Your task to perform on an android device: Open sound settings Image 0: 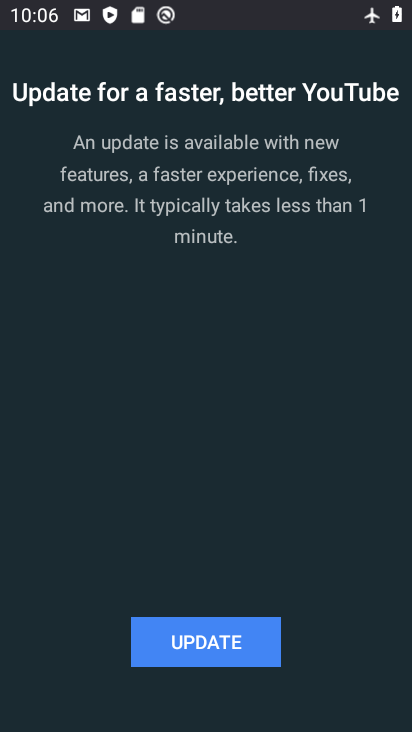
Step 0: click (206, 615)
Your task to perform on an android device: Open sound settings Image 1: 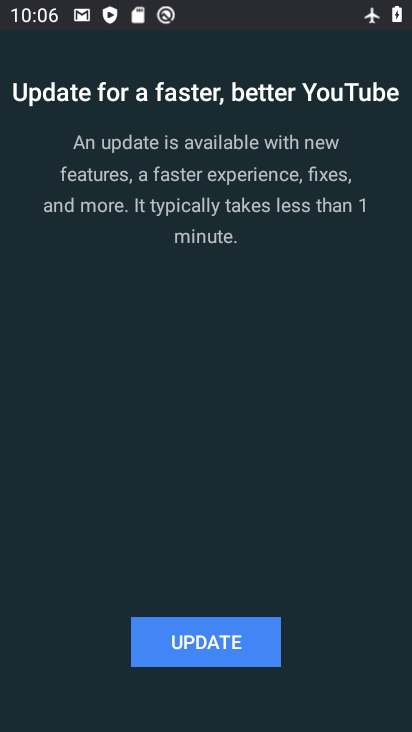
Step 1: click (206, 640)
Your task to perform on an android device: Open sound settings Image 2: 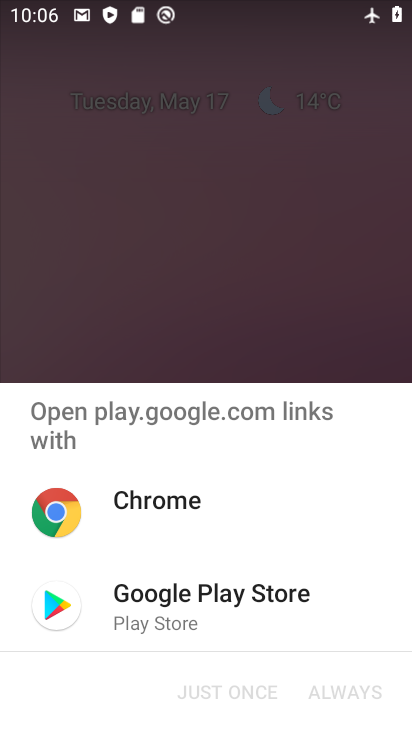
Step 2: click (267, 285)
Your task to perform on an android device: Open sound settings Image 3: 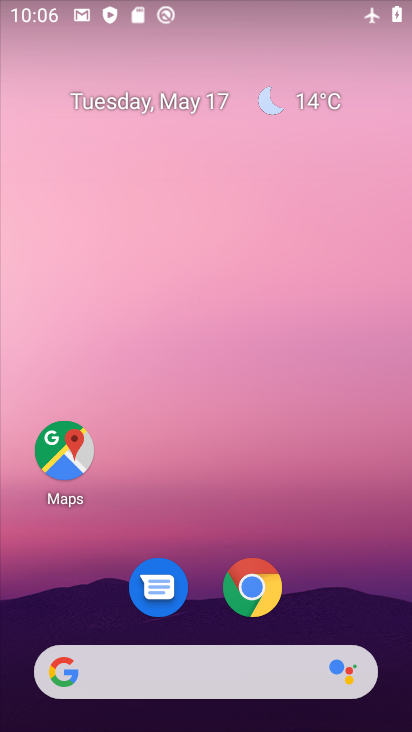
Step 3: drag from (278, 621) to (185, 110)
Your task to perform on an android device: Open sound settings Image 4: 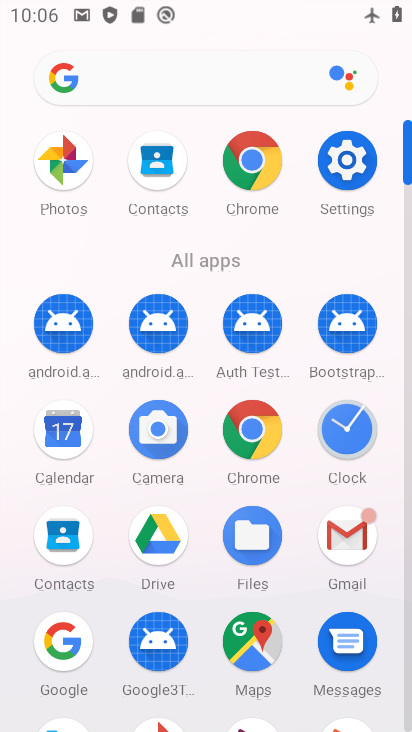
Step 4: click (321, 169)
Your task to perform on an android device: Open sound settings Image 5: 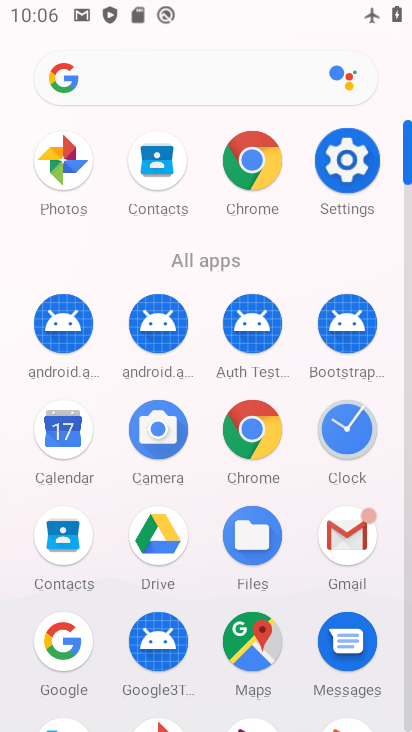
Step 5: click (321, 169)
Your task to perform on an android device: Open sound settings Image 6: 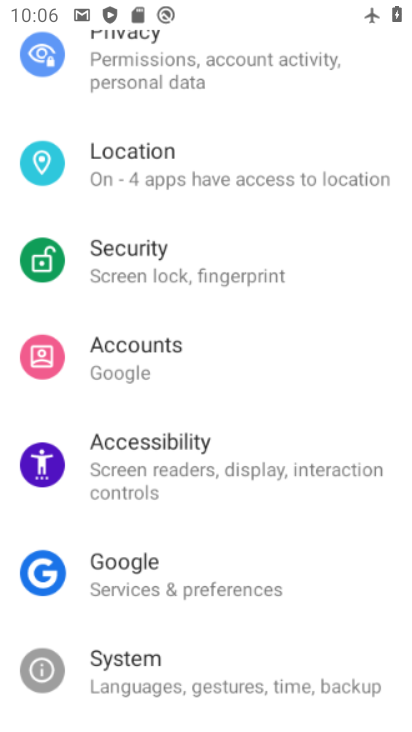
Step 6: click (322, 170)
Your task to perform on an android device: Open sound settings Image 7: 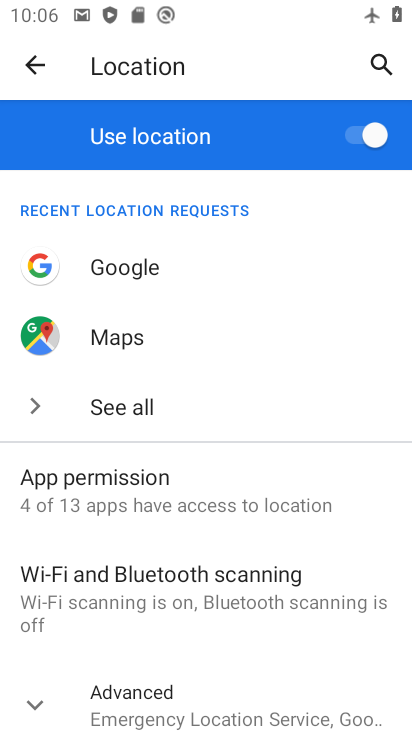
Step 7: click (31, 55)
Your task to perform on an android device: Open sound settings Image 8: 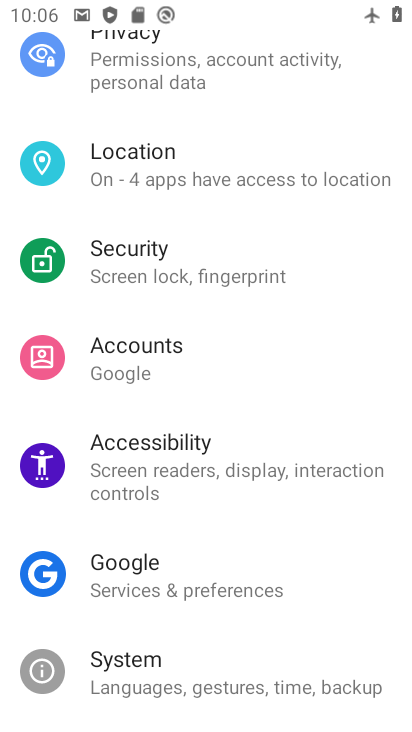
Step 8: drag from (168, 279) to (175, 561)
Your task to perform on an android device: Open sound settings Image 9: 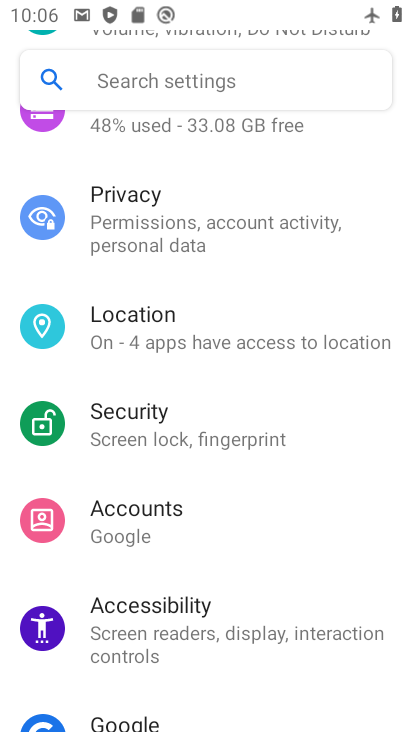
Step 9: drag from (127, 216) to (136, 491)
Your task to perform on an android device: Open sound settings Image 10: 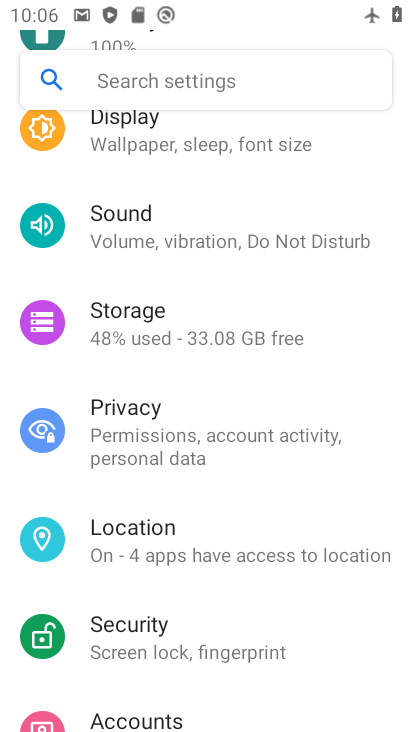
Step 10: drag from (136, 254) to (150, 494)
Your task to perform on an android device: Open sound settings Image 11: 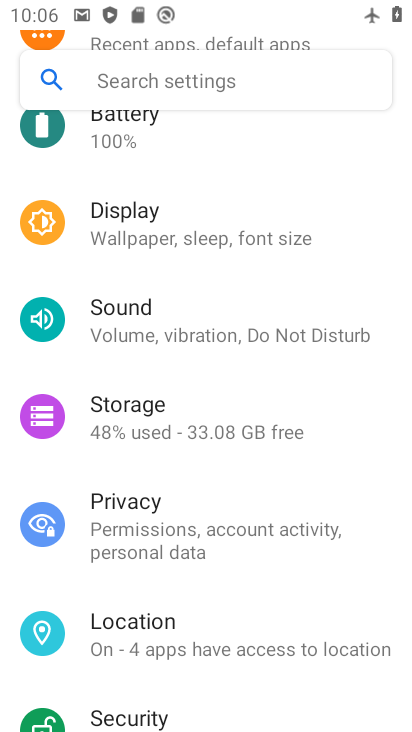
Step 11: click (134, 336)
Your task to perform on an android device: Open sound settings Image 12: 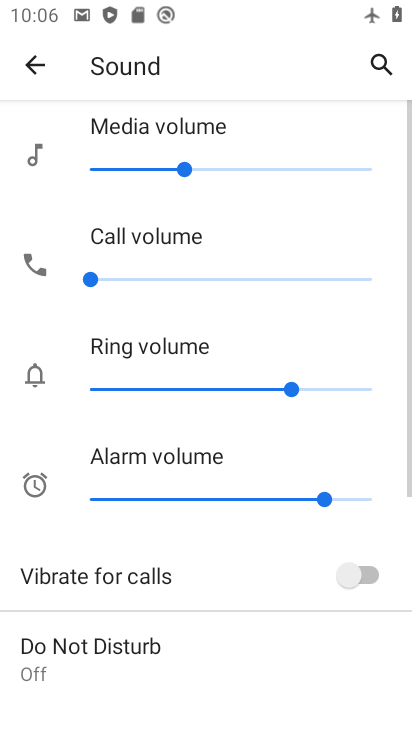
Step 12: task complete